Your task to perform on an android device: Open the stopwatch Image 0: 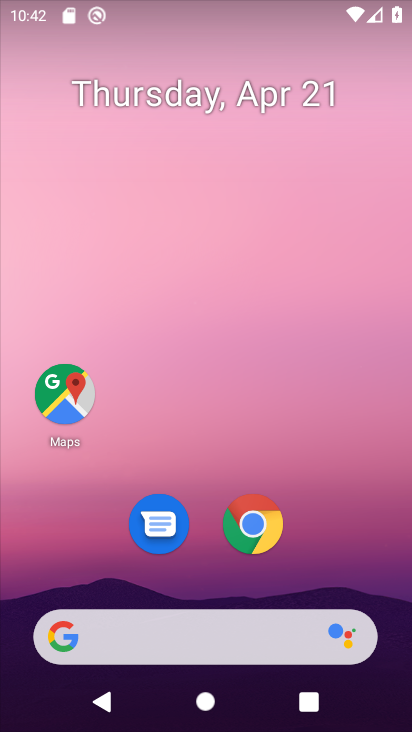
Step 0: drag from (307, 530) to (362, 67)
Your task to perform on an android device: Open the stopwatch Image 1: 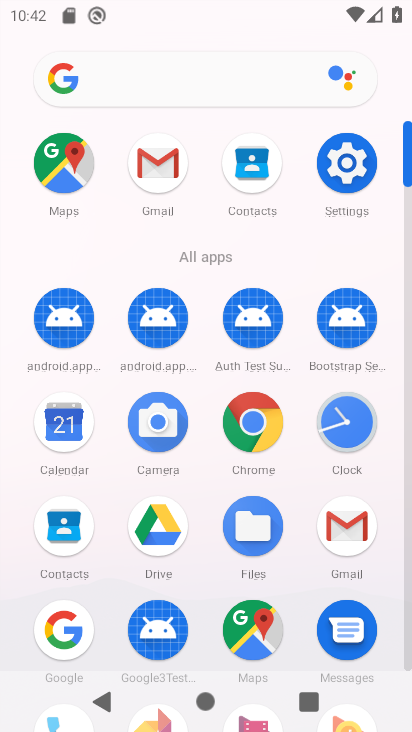
Step 1: click (347, 416)
Your task to perform on an android device: Open the stopwatch Image 2: 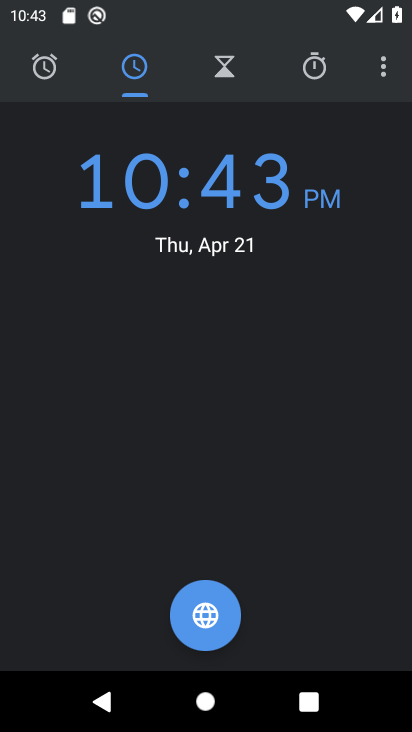
Step 2: click (320, 69)
Your task to perform on an android device: Open the stopwatch Image 3: 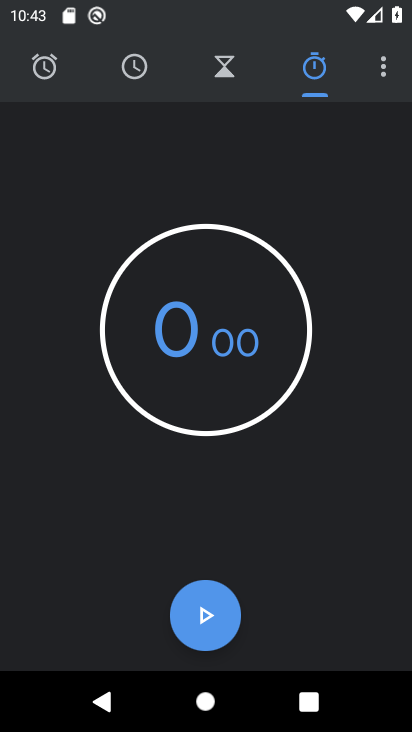
Step 3: task complete